Your task to perform on an android device: Check the news Image 0: 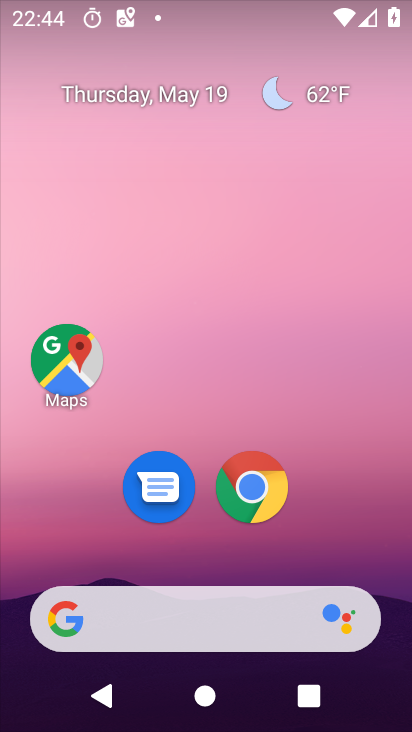
Step 0: click (197, 609)
Your task to perform on an android device: Check the news Image 1: 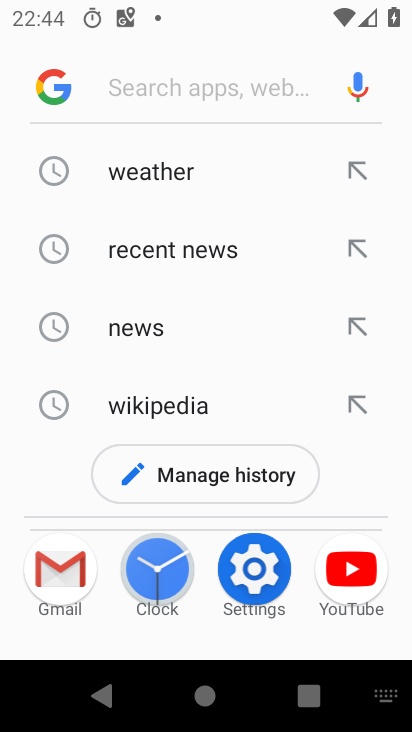
Step 1: click (171, 324)
Your task to perform on an android device: Check the news Image 2: 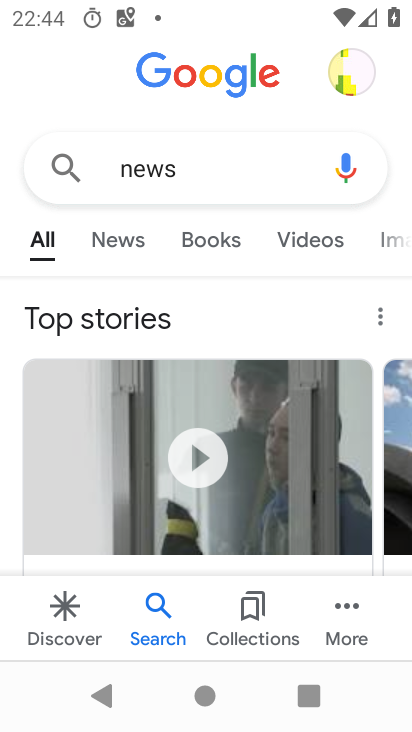
Step 2: click (118, 240)
Your task to perform on an android device: Check the news Image 3: 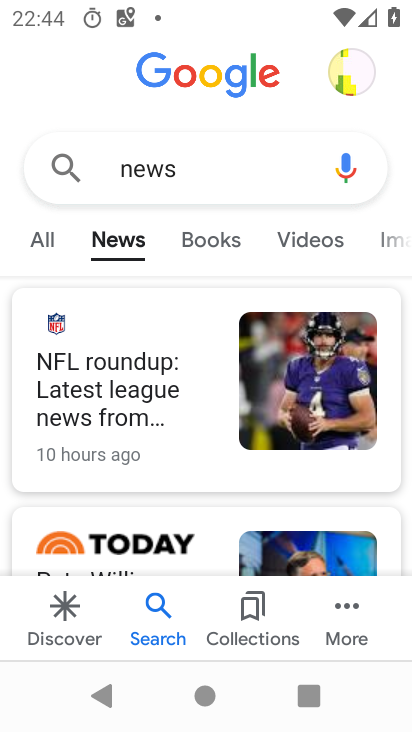
Step 3: task complete